Your task to perform on an android device: turn on location history Image 0: 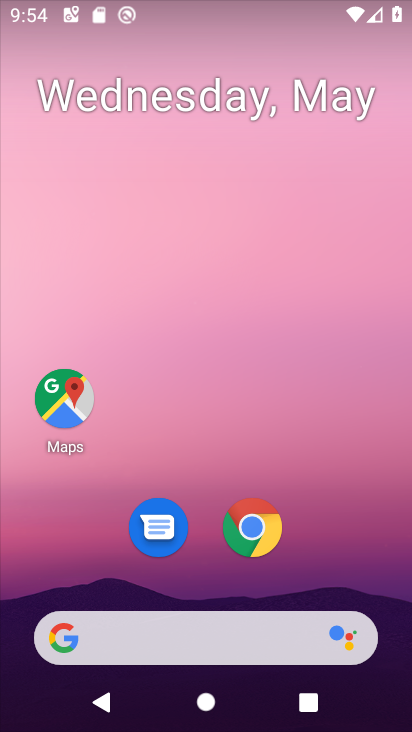
Step 0: drag from (212, 580) to (229, 114)
Your task to perform on an android device: turn on location history Image 1: 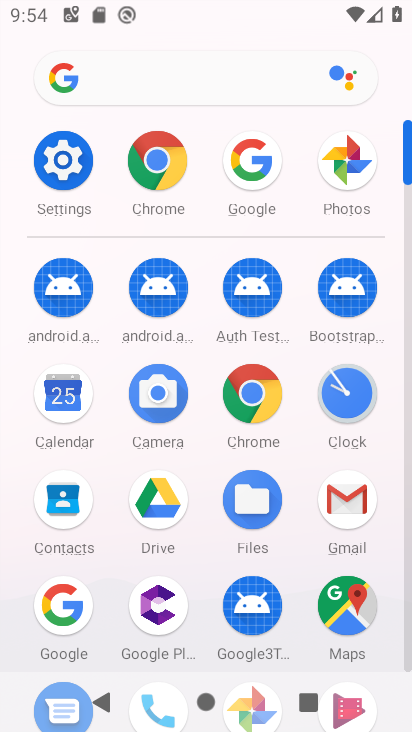
Step 1: click (66, 147)
Your task to perform on an android device: turn on location history Image 2: 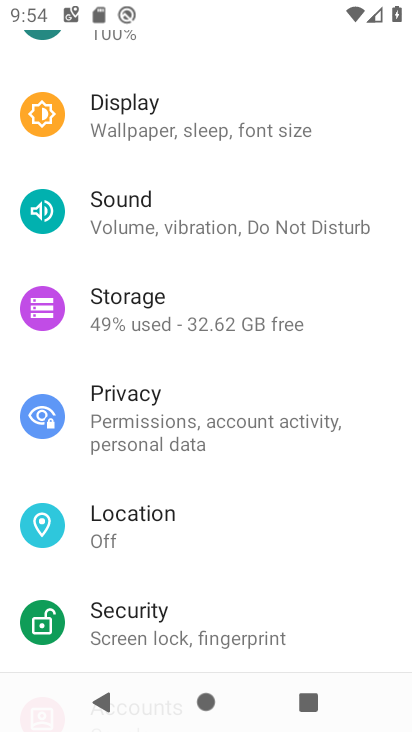
Step 2: click (98, 530)
Your task to perform on an android device: turn on location history Image 3: 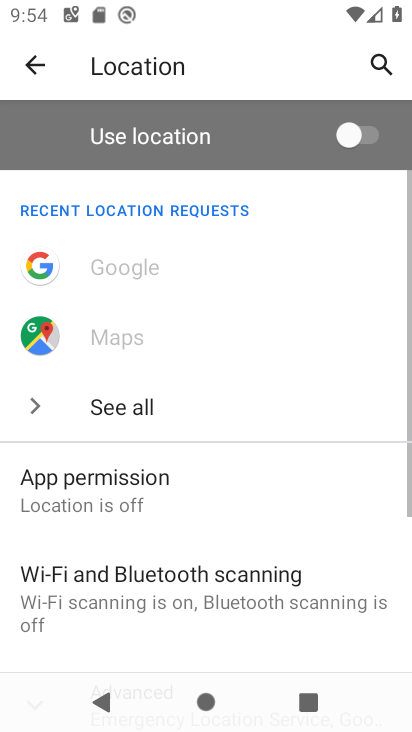
Step 3: drag from (248, 558) to (229, 182)
Your task to perform on an android device: turn on location history Image 4: 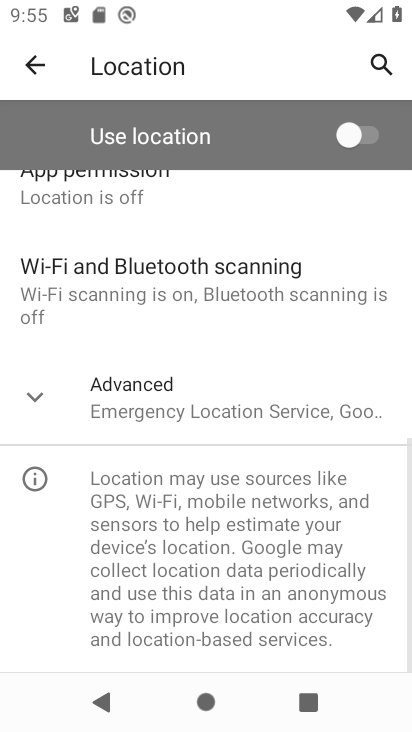
Step 4: click (139, 385)
Your task to perform on an android device: turn on location history Image 5: 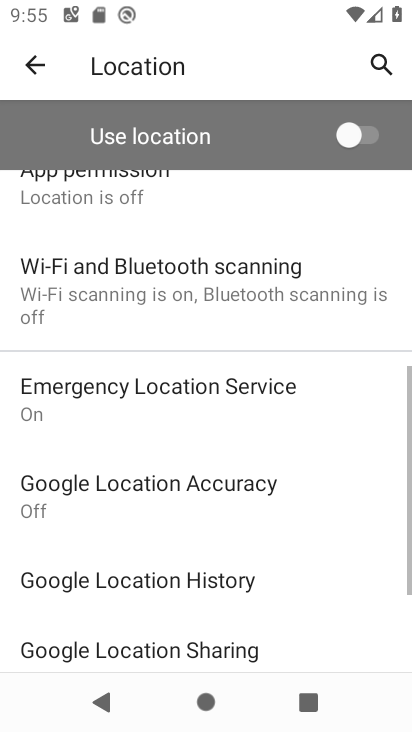
Step 5: click (218, 587)
Your task to perform on an android device: turn on location history Image 6: 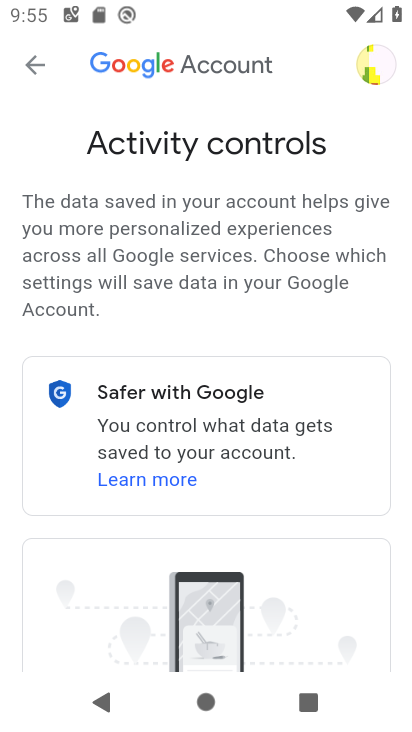
Step 6: drag from (317, 572) to (323, 85)
Your task to perform on an android device: turn on location history Image 7: 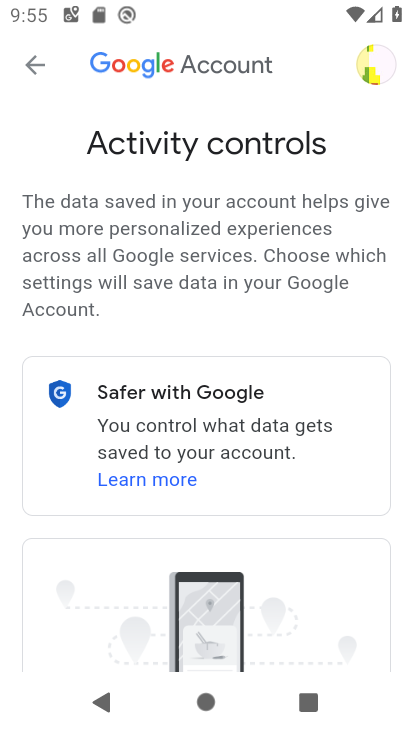
Step 7: drag from (288, 547) to (288, 97)
Your task to perform on an android device: turn on location history Image 8: 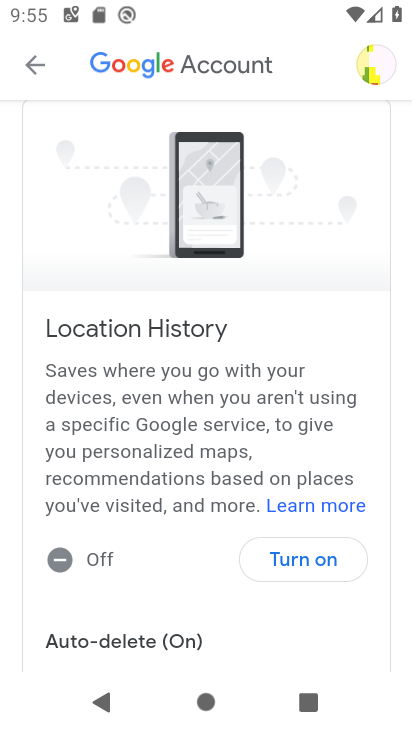
Step 8: click (304, 560)
Your task to perform on an android device: turn on location history Image 9: 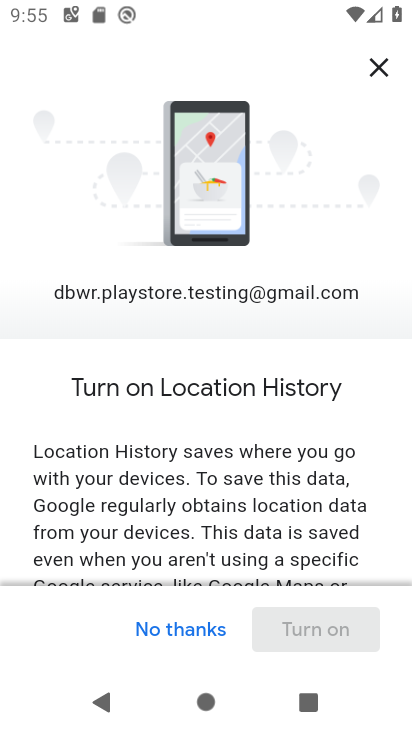
Step 9: drag from (307, 540) to (287, 91)
Your task to perform on an android device: turn on location history Image 10: 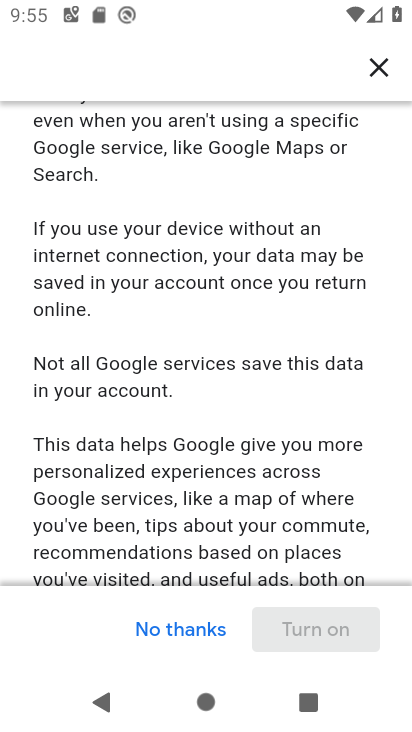
Step 10: drag from (333, 537) to (308, 61)
Your task to perform on an android device: turn on location history Image 11: 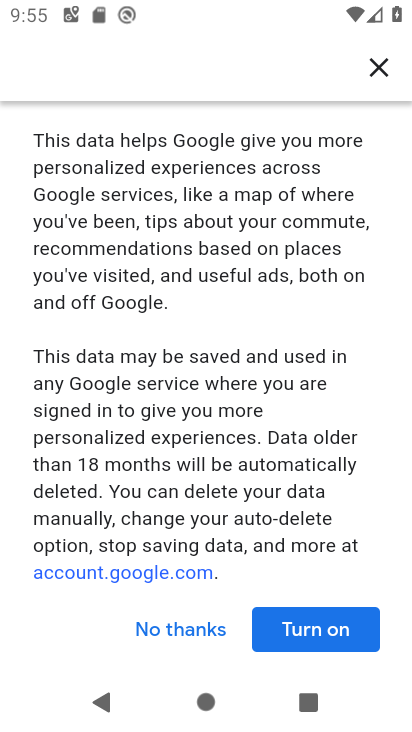
Step 11: click (324, 636)
Your task to perform on an android device: turn on location history Image 12: 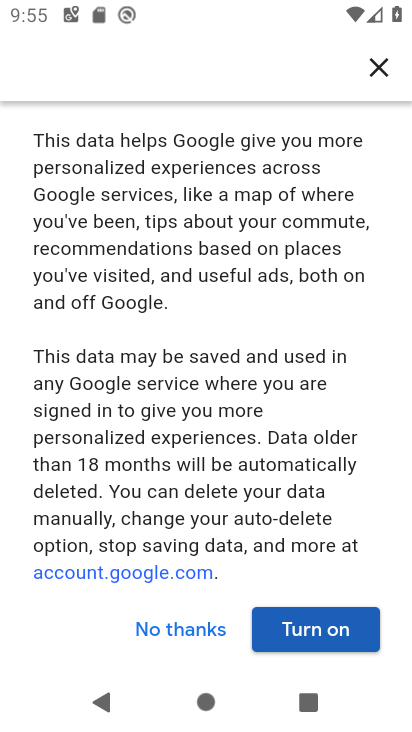
Step 12: click (324, 636)
Your task to perform on an android device: turn on location history Image 13: 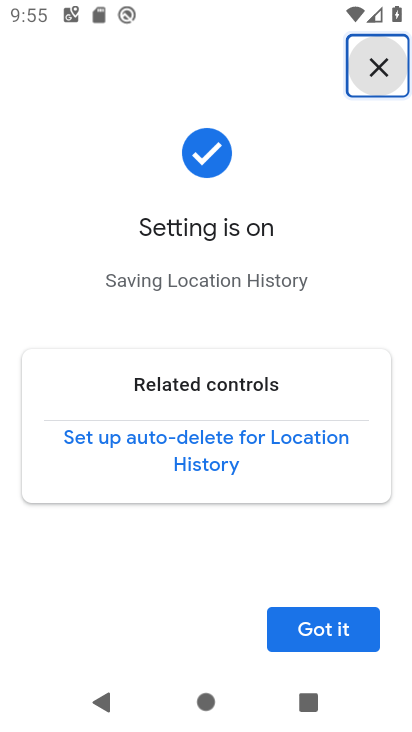
Step 13: click (321, 639)
Your task to perform on an android device: turn on location history Image 14: 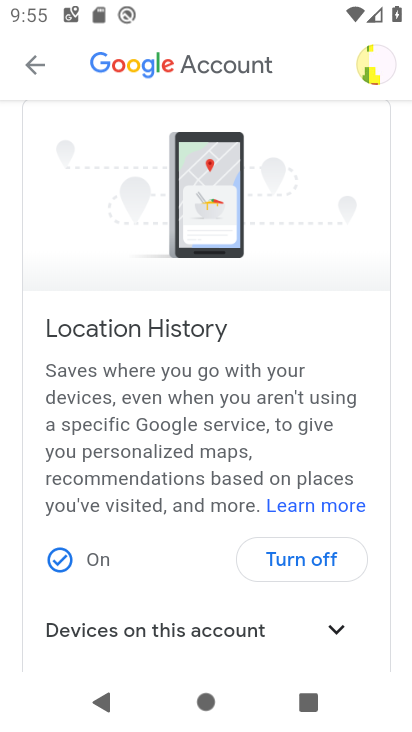
Step 14: task complete